Your task to perform on an android device: turn on translation in the chrome app Image 0: 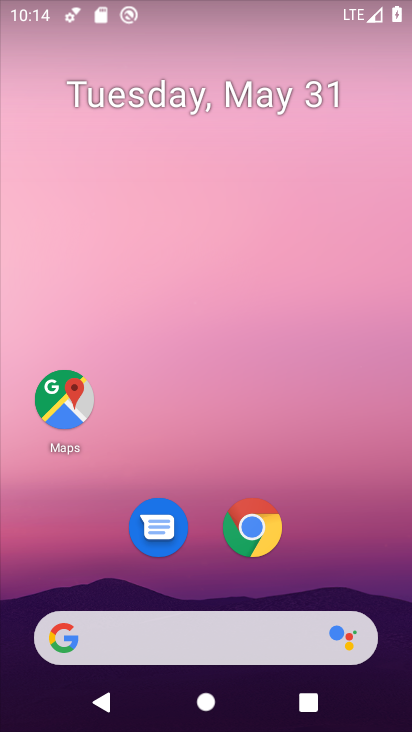
Step 0: click (261, 534)
Your task to perform on an android device: turn on translation in the chrome app Image 1: 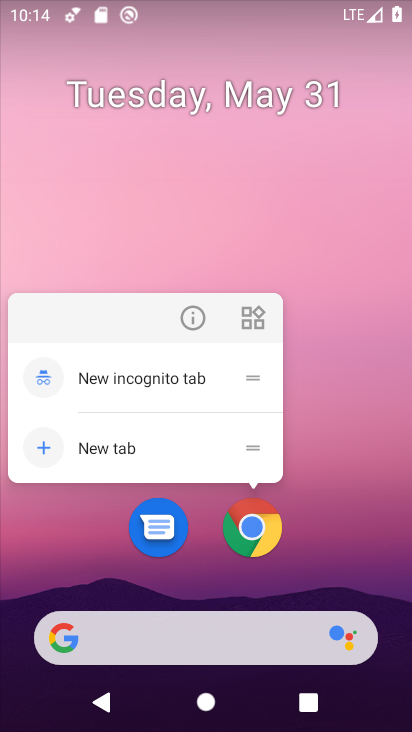
Step 1: click (261, 534)
Your task to perform on an android device: turn on translation in the chrome app Image 2: 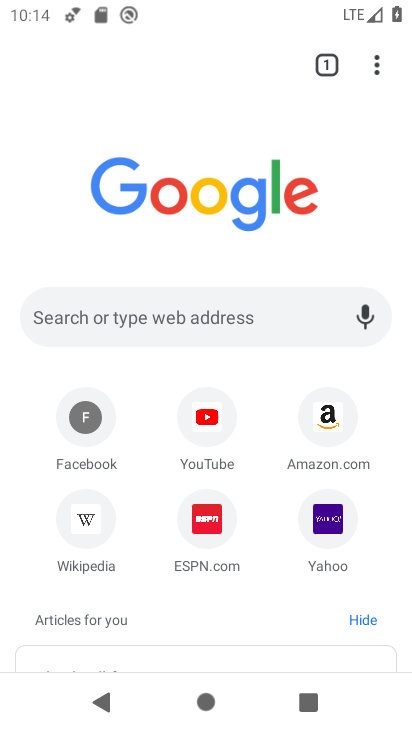
Step 2: click (383, 62)
Your task to perform on an android device: turn on translation in the chrome app Image 3: 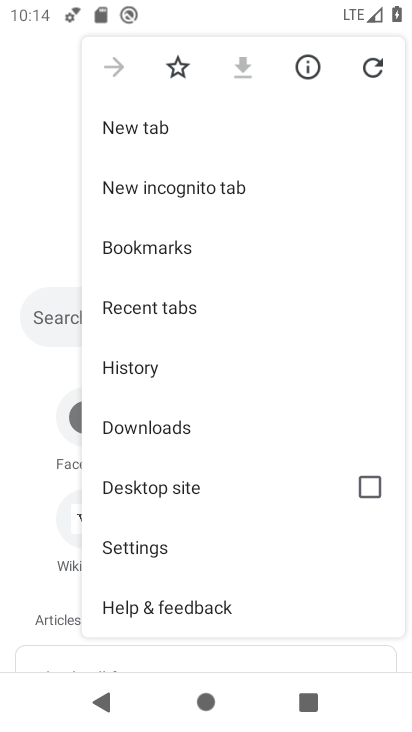
Step 3: click (141, 547)
Your task to perform on an android device: turn on translation in the chrome app Image 4: 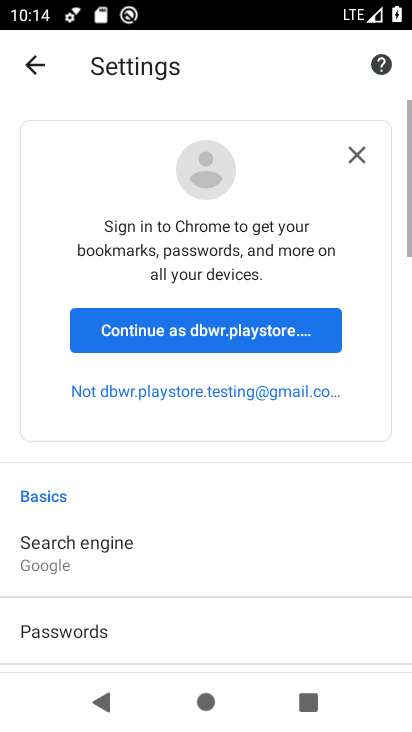
Step 4: drag from (198, 582) to (205, 46)
Your task to perform on an android device: turn on translation in the chrome app Image 5: 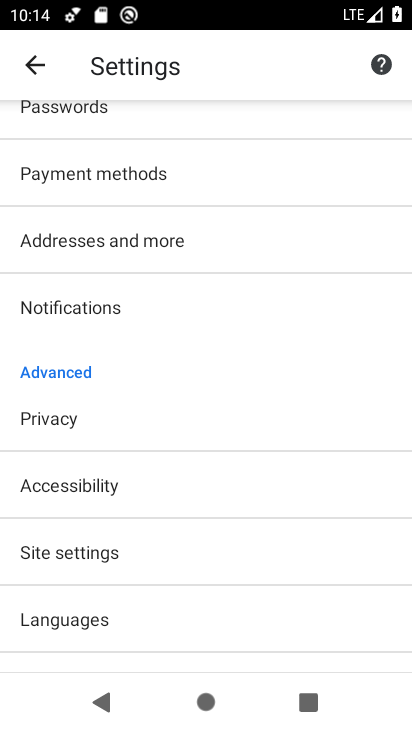
Step 5: click (84, 625)
Your task to perform on an android device: turn on translation in the chrome app Image 6: 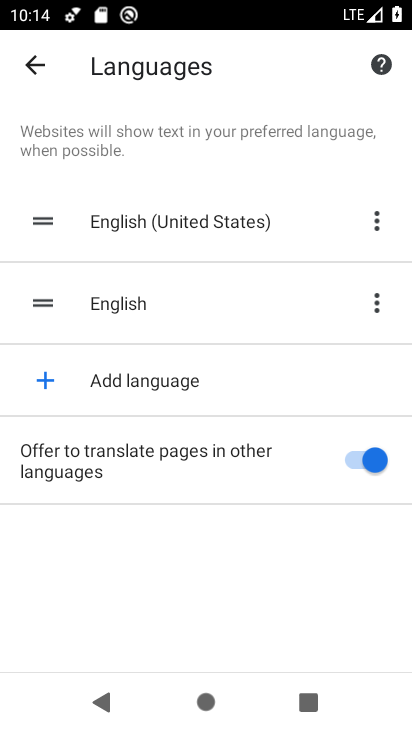
Step 6: task complete